Your task to perform on an android device: Toggle the flashlight Image 0: 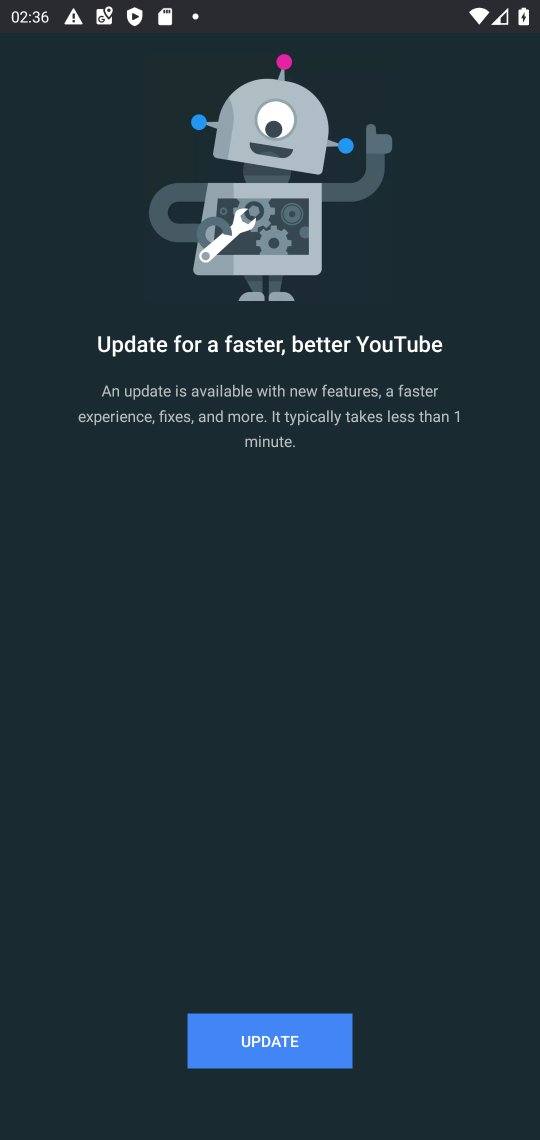
Step 0: press home button
Your task to perform on an android device: Toggle the flashlight Image 1: 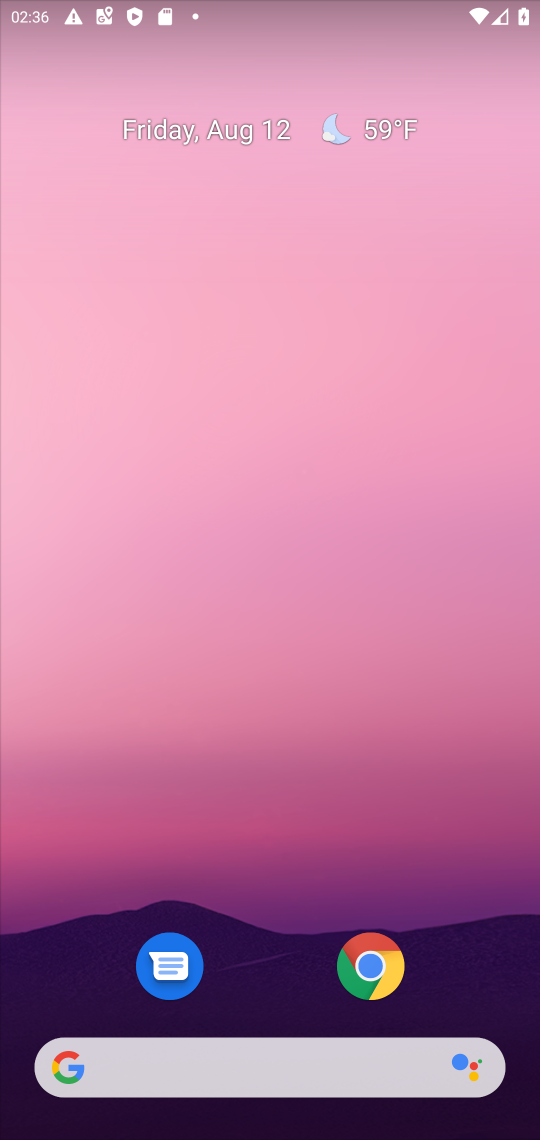
Step 1: drag from (242, 969) to (460, 302)
Your task to perform on an android device: Toggle the flashlight Image 2: 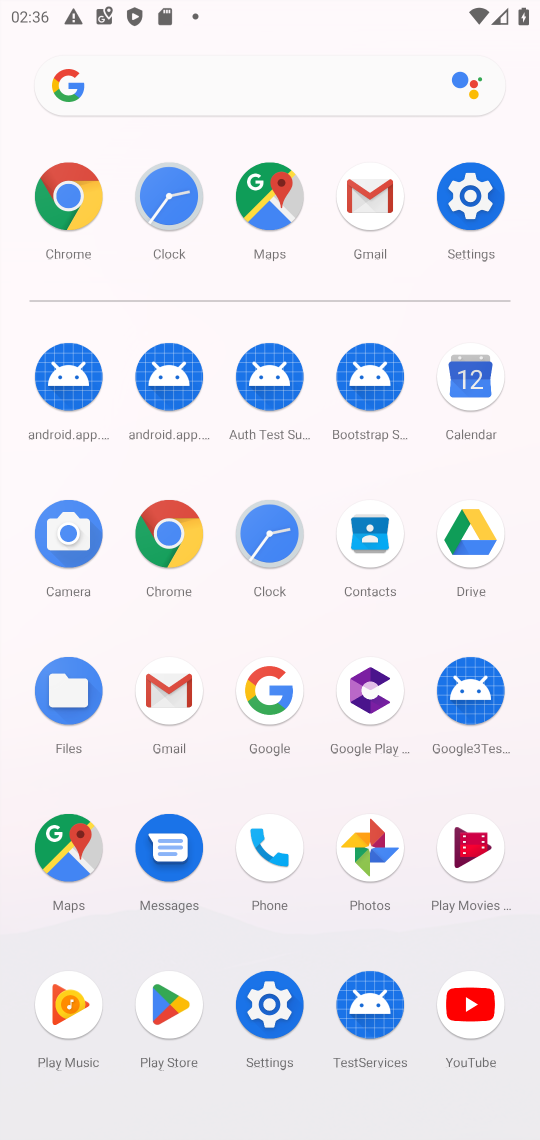
Step 2: click (282, 990)
Your task to perform on an android device: Toggle the flashlight Image 3: 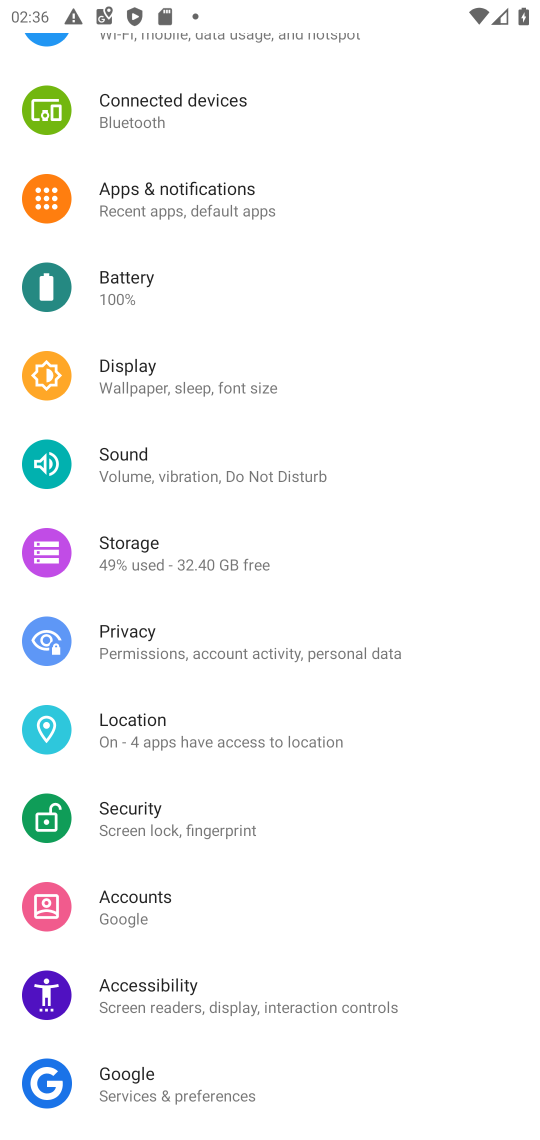
Step 3: click (199, 388)
Your task to perform on an android device: Toggle the flashlight Image 4: 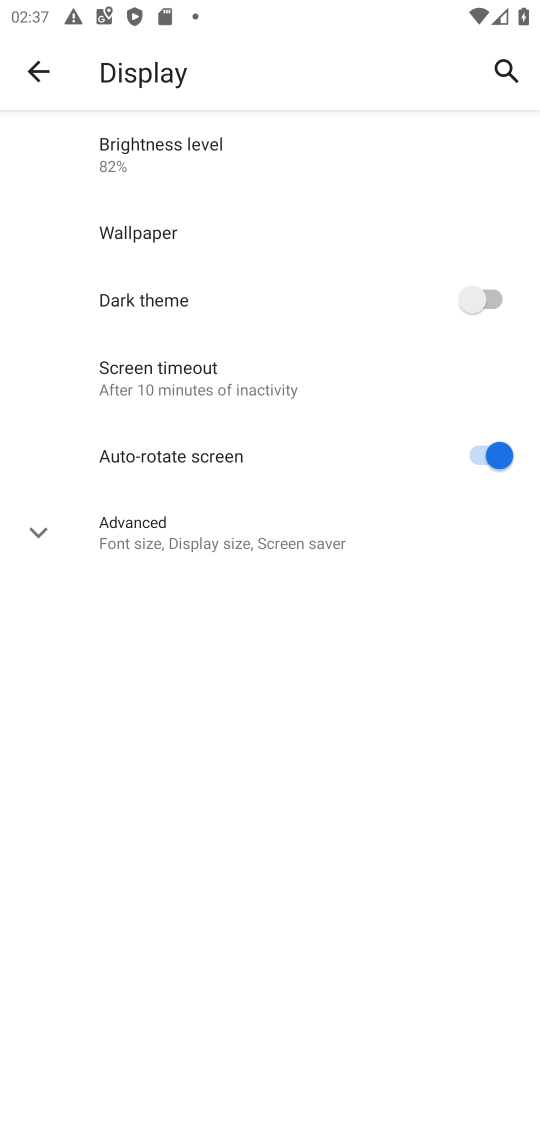
Step 4: click (194, 365)
Your task to perform on an android device: Toggle the flashlight Image 5: 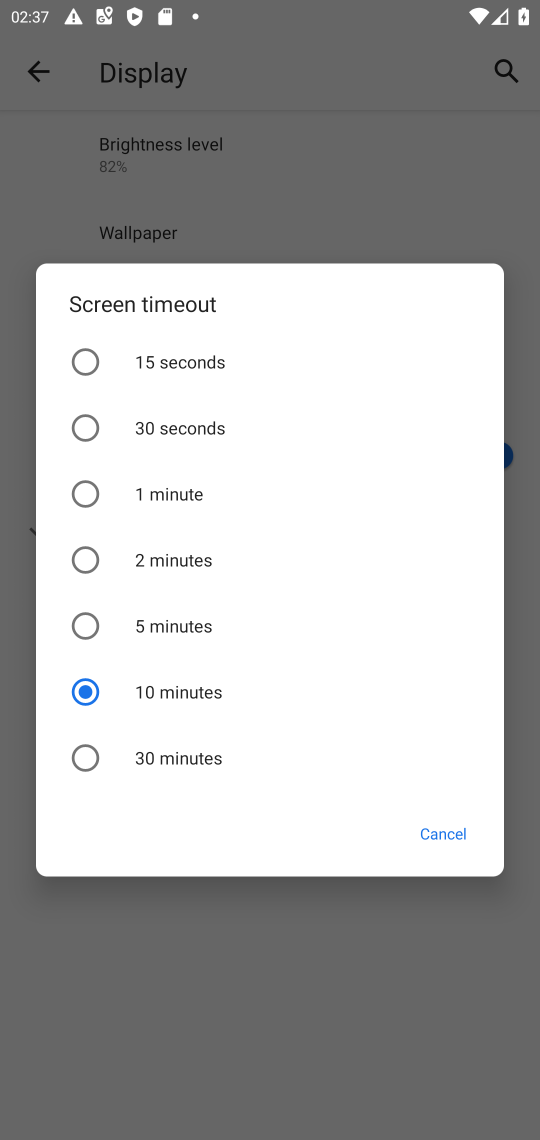
Step 5: task complete